Your task to perform on an android device: Open calendar and show me the second week of next month Image 0: 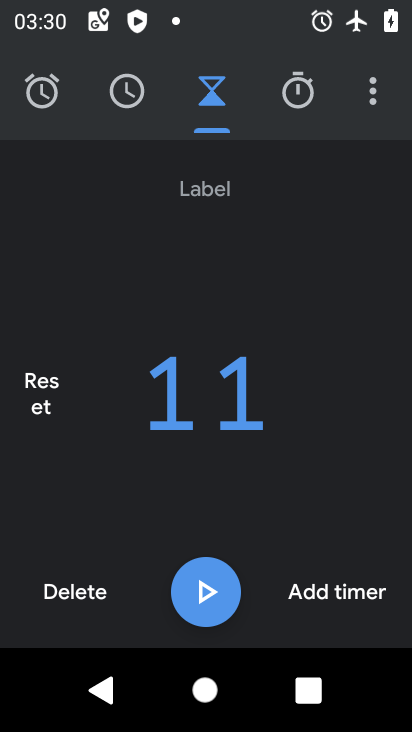
Step 0: press home button
Your task to perform on an android device: Open calendar and show me the second week of next month Image 1: 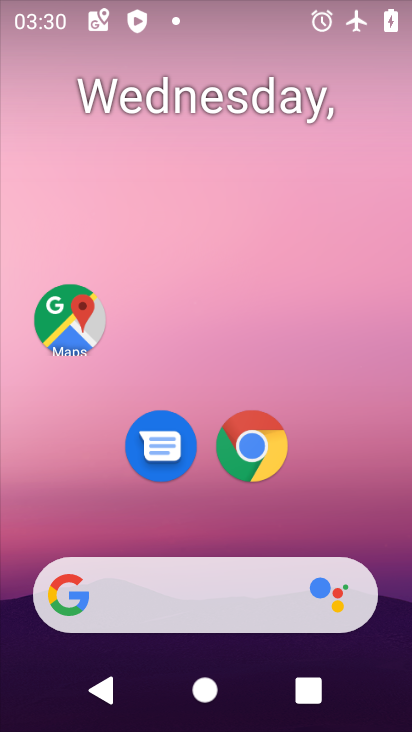
Step 1: drag from (217, 515) to (186, 248)
Your task to perform on an android device: Open calendar and show me the second week of next month Image 2: 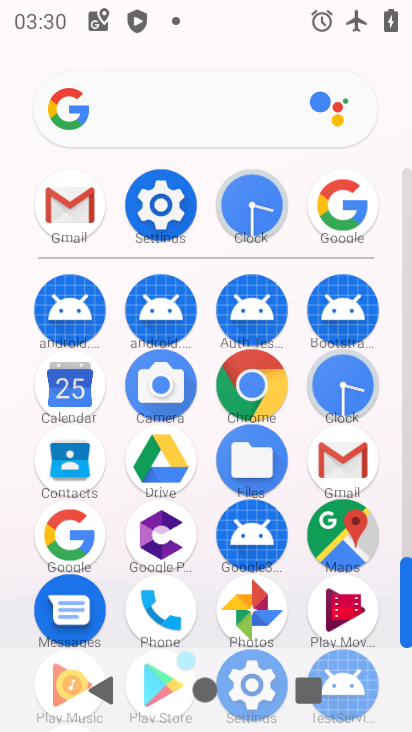
Step 2: click (82, 380)
Your task to perform on an android device: Open calendar and show me the second week of next month Image 3: 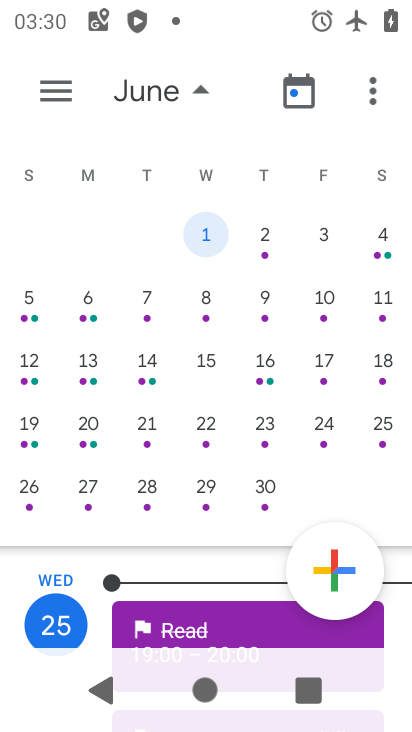
Step 3: click (25, 316)
Your task to perform on an android device: Open calendar and show me the second week of next month Image 4: 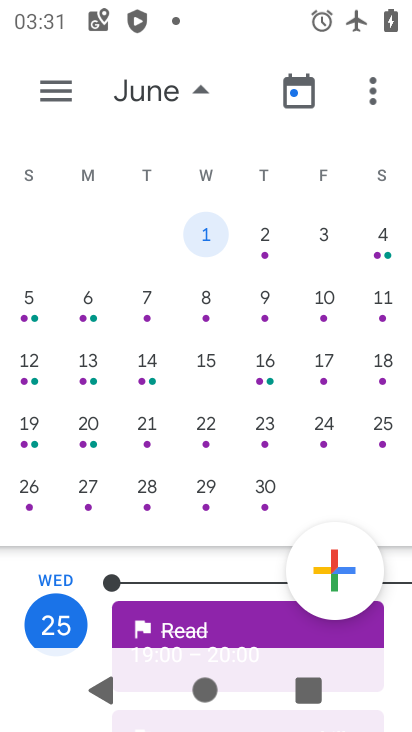
Step 4: click (33, 307)
Your task to perform on an android device: Open calendar and show me the second week of next month Image 5: 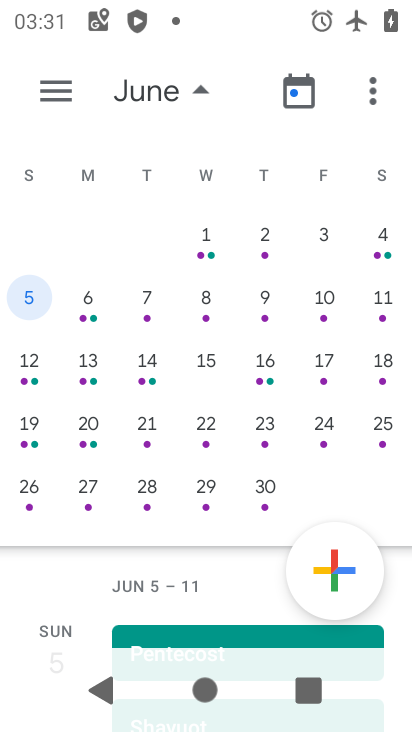
Step 5: task complete